Your task to perform on an android device: turn off sleep mode Image 0: 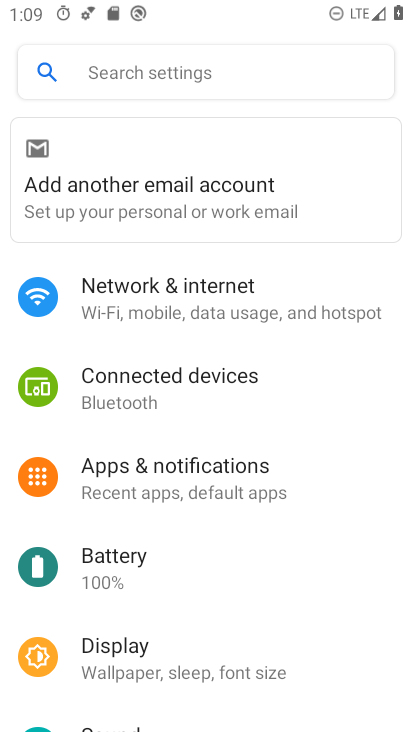
Step 0: drag from (157, 682) to (157, 632)
Your task to perform on an android device: turn off sleep mode Image 1: 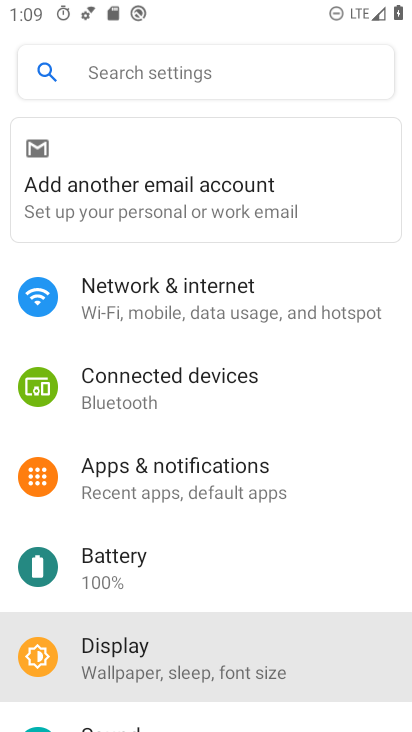
Step 1: task complete